Your task to perform on an android device: Open Yahoo.com Image 0: 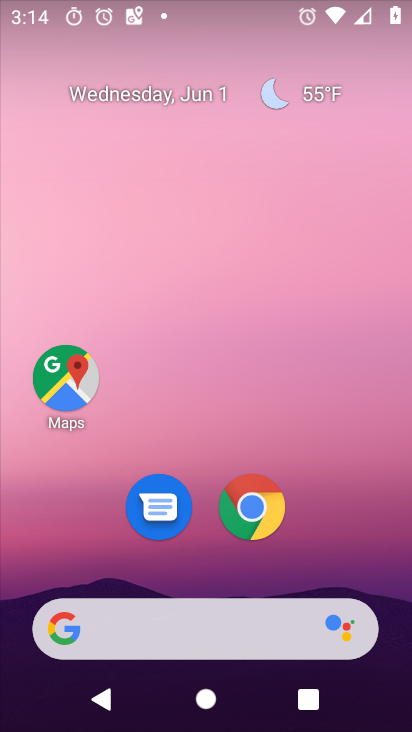
Step 0: click (375, 539)
Your task to perform on an android device: Open Yahoo.com Image 1: 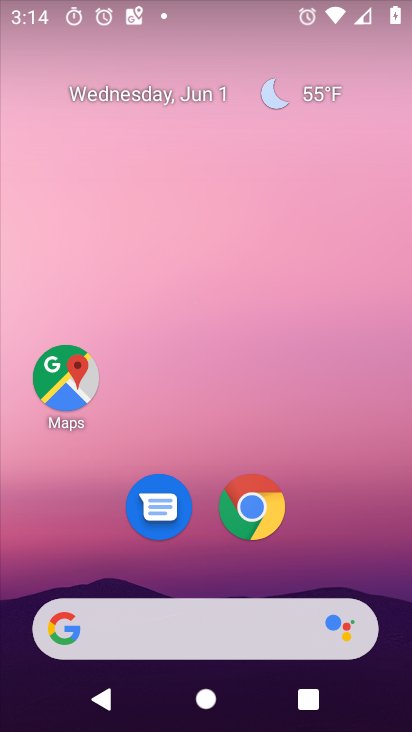
Step 1: click (250, 502)
Your task to perform on an android device: Open Yahoo.com Image 2: 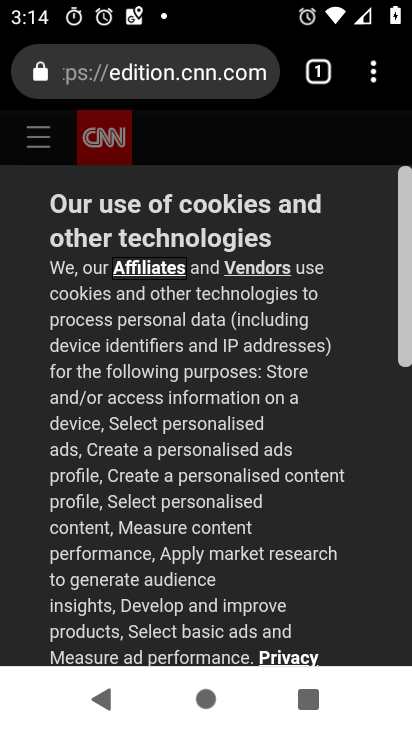
Step 2: click (120, 83)
Your task to perform on an android device: Open Yahoo.com Image 3: 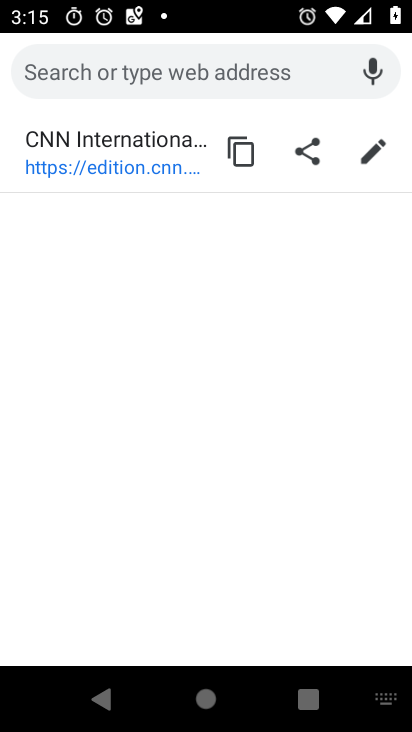
Step 3: type "yahoo.com"
Your task to perform on an android device: Open Yahoo.com Image 4: 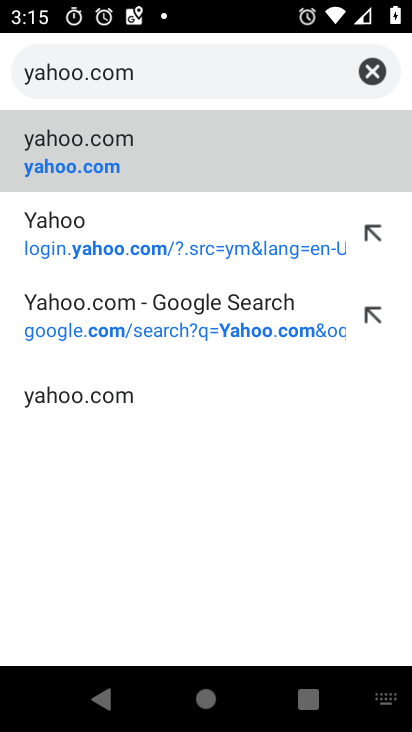
Step 4: click (97, 167)
Your task to perform on an android device: Open Yahoo.com Image 5: 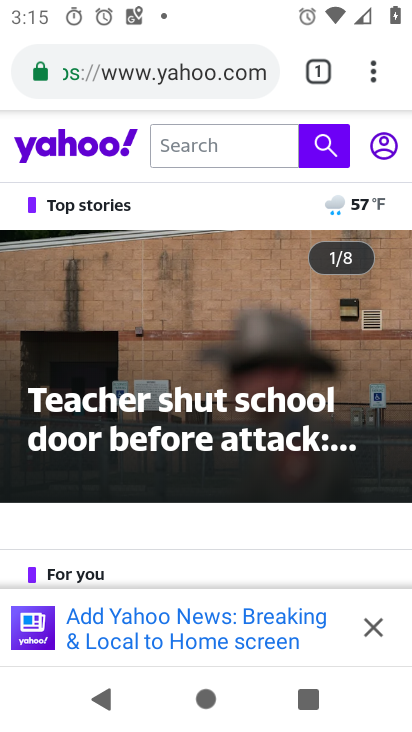
Step 5: task complete